Your task to perform on an android device: refresh tabs in the chrome app Image 0: 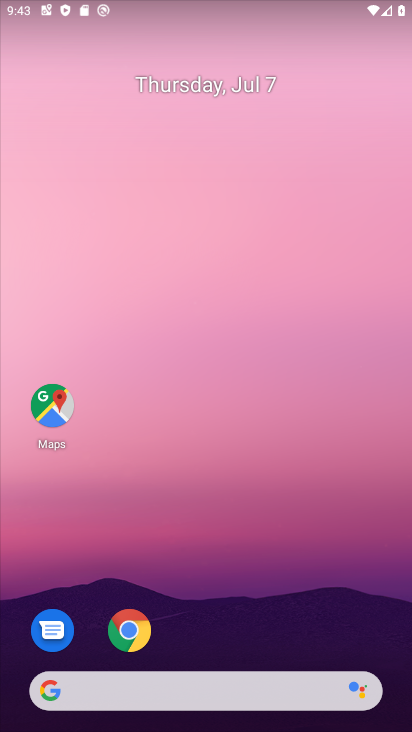
Step 0: click (122, 635)
Your task to perform on an android device: refresh tabs in the chrome app Image 1: 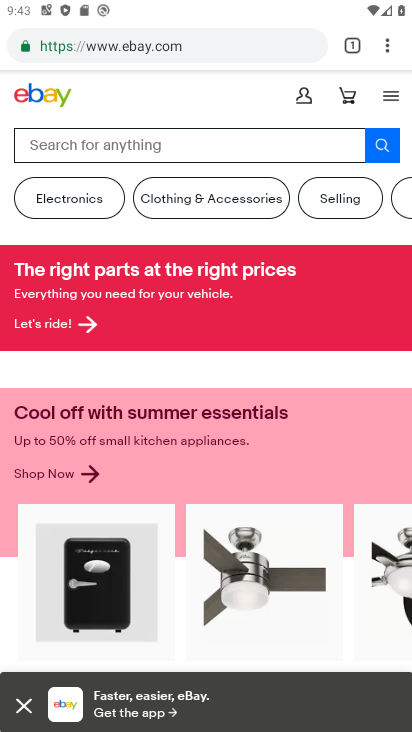
Step 1: click (390, 41)
Your task to perform on an android device: refresh tabs in the chrome app Image 2: 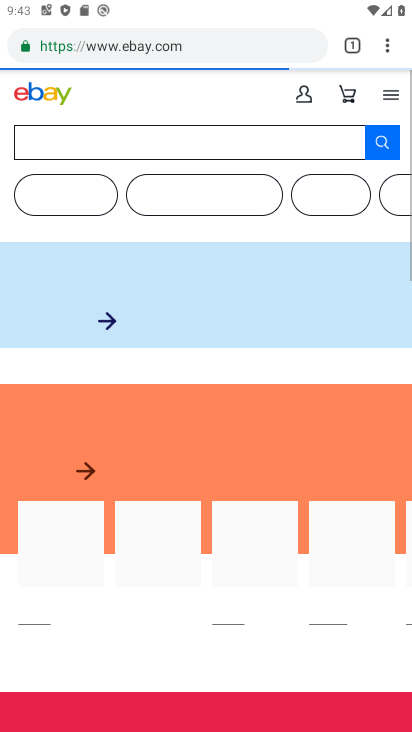
Step 2: click (389, 42)
Your task to perform on an android device: refresh tabs in the chrome app Image 3: 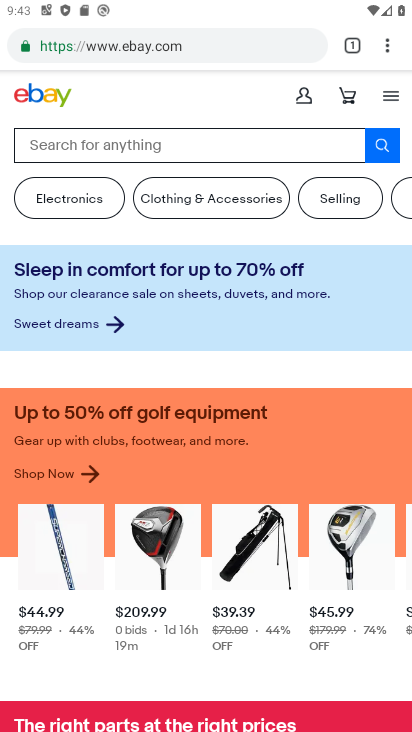
Step 3: click (383, 50)
Your task to perform on an android device: refresh tabs in the chrome app Image 4: 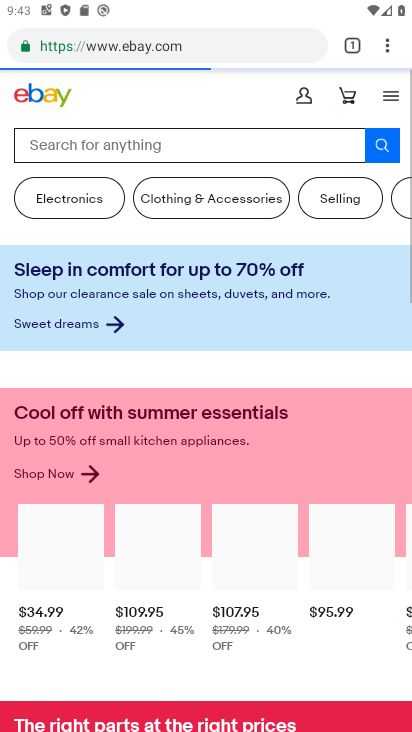
Step 4: click (383, 50)
Your task to perform on an android device: refresh tabs in the chrome app Image 5: 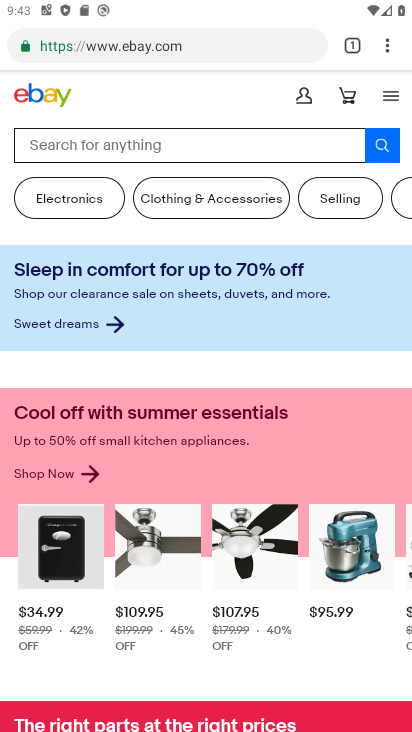
Step 5: click (388, 50)
Your task to perform on an android device: refresh tabs in the chrome app Image 6: 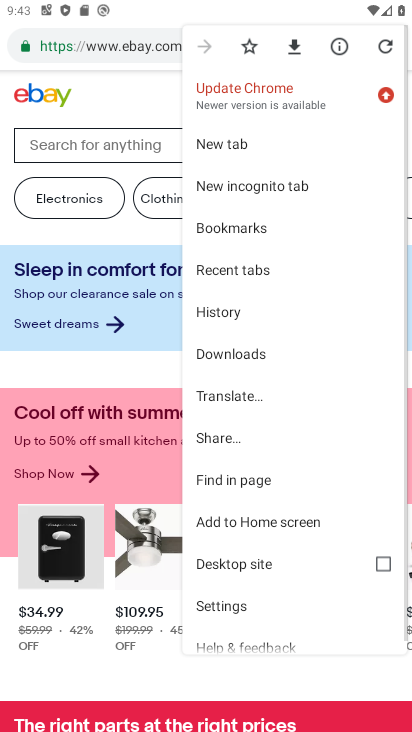
Step 6: click (383, 43)
Your task to perform on an android device: refresh tabs in the chrome app Image 7: 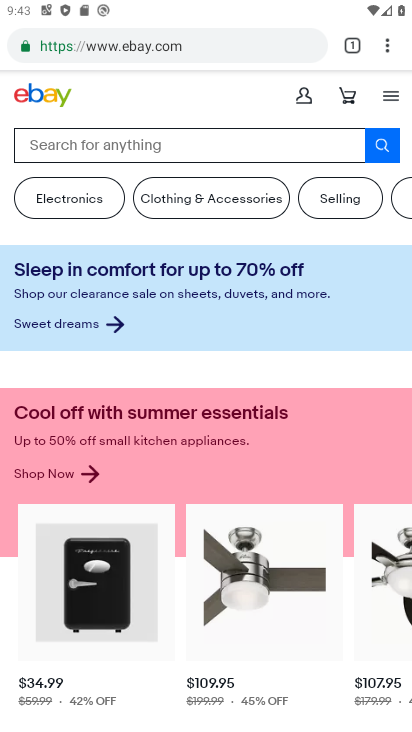
Step 7: task complete